Your task to perform on an android device: delete a single message in the gmail app Image 0: 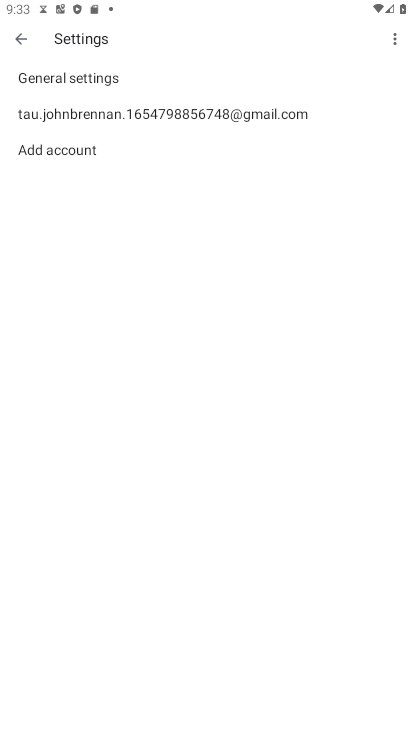
Step 0: click (19, 34)
Your task to perform on an android device: delete a single message in the gmail app Image 1: 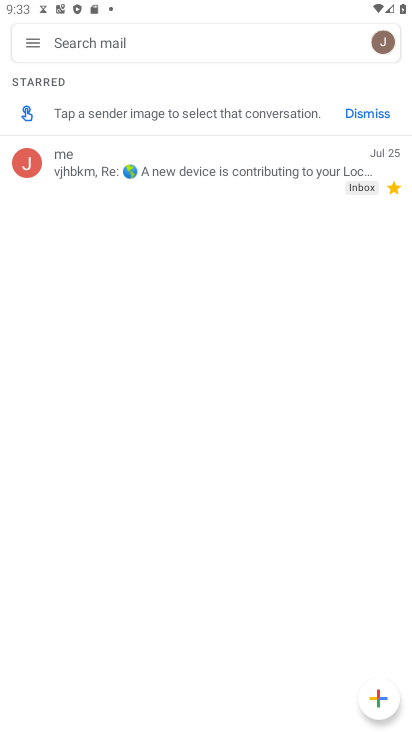
Step 1: click (32, 43)
Your task to perform on an android device: delete a single message in the gmail app Image 2: 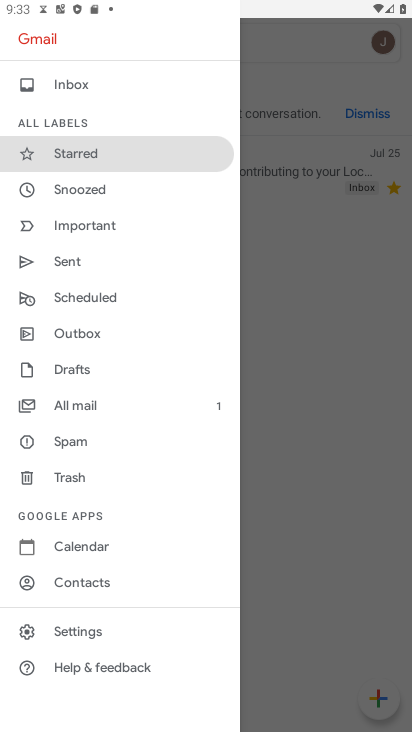
Step 2: click (82, 92)
Your task to perform on an android device: delete a single message in the gmail app Image 3: 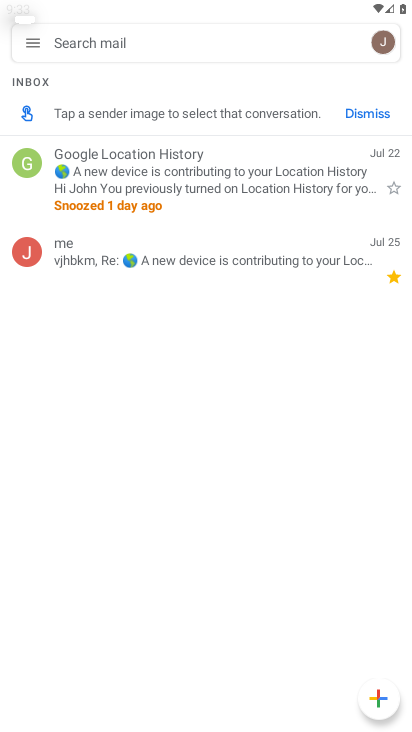
Step 3: click (28, 162)
Your task to perform on an android device: delete a single message in the gmail app Image 4: 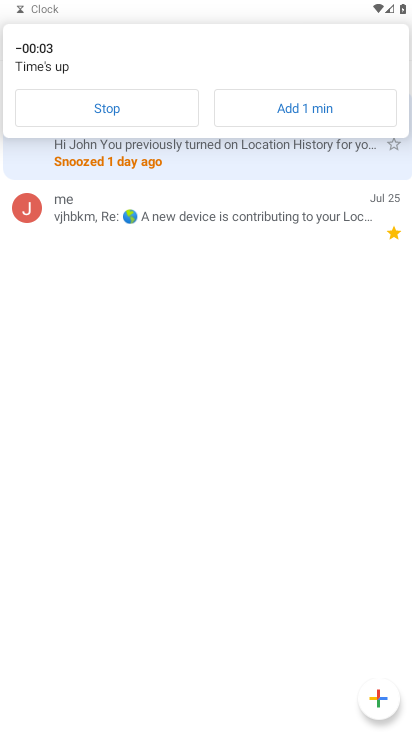
Step 4: click (88, 97)
Your task to perform on an android device: delete a single message in the gmail app Image 5: 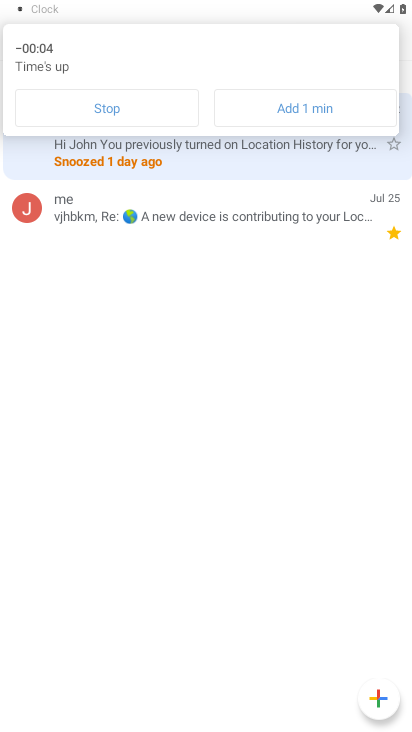
Step 5: click (31, 205)
Your task to perform on an android device: delete a single message in the gmail app Image 6: 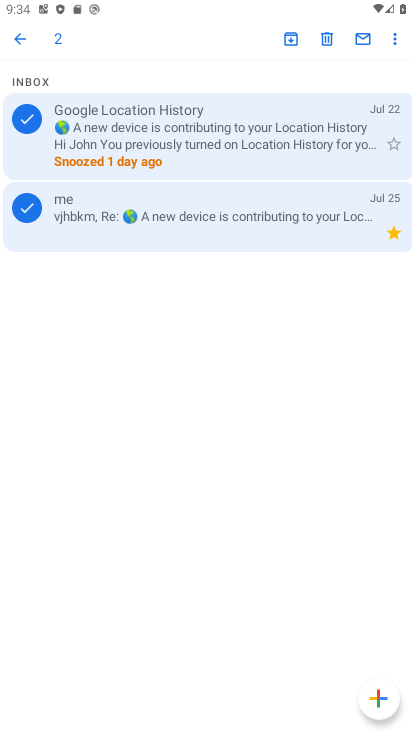
Step 6: click (28, 98)
Your task to perform on an android device: delete a single message in the gmail app Image 7: 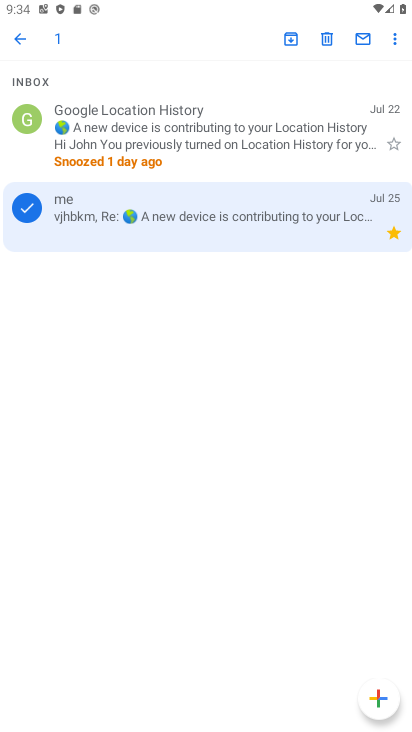
Step 7: click (325, 32)
Your task to perform on an android device: delete a single message in the gmail app Image 8: 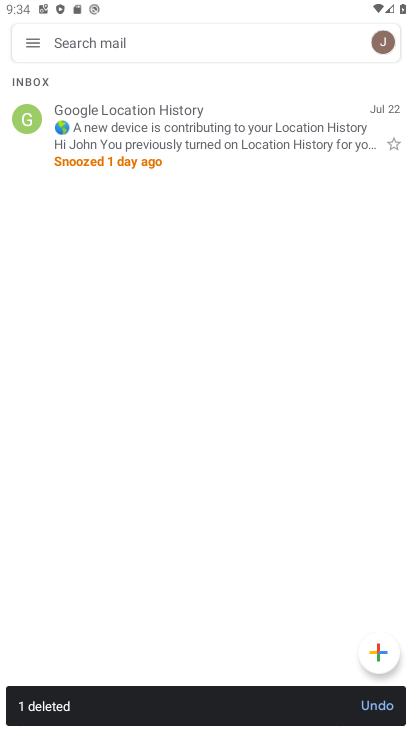
Step 8: task complete